Your task to perform on an android device: Go to sound settings Image 0: 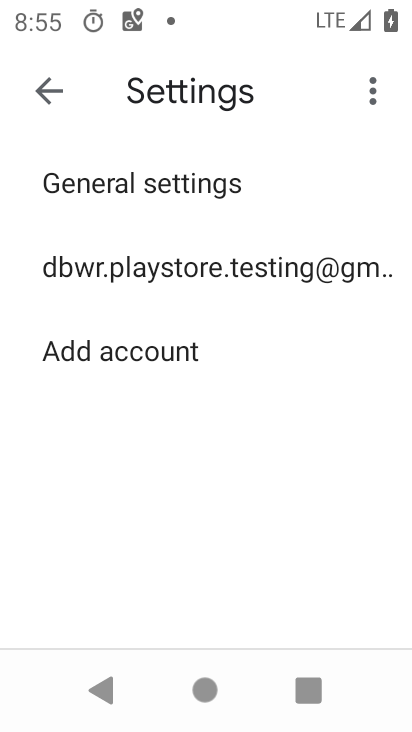
Step 0: click (272, 467)
Your task to perform on an android device: Go to sound settings Image 1: 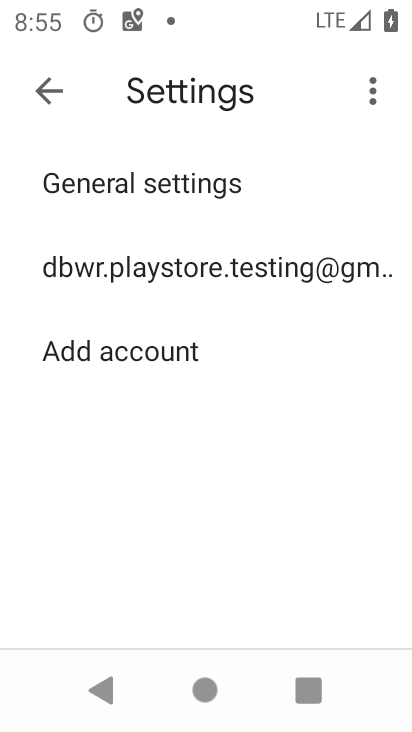
Step 1: press home button
Your task to perform on an android device: Go to sound settings Image 2: 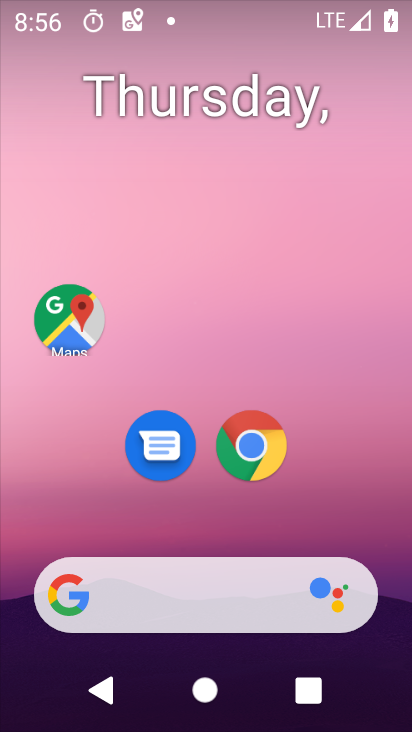
Step 2: drag from (198, 536) to (183, 18)
Your task to perform on an android device: Go to sound settings Image 3: 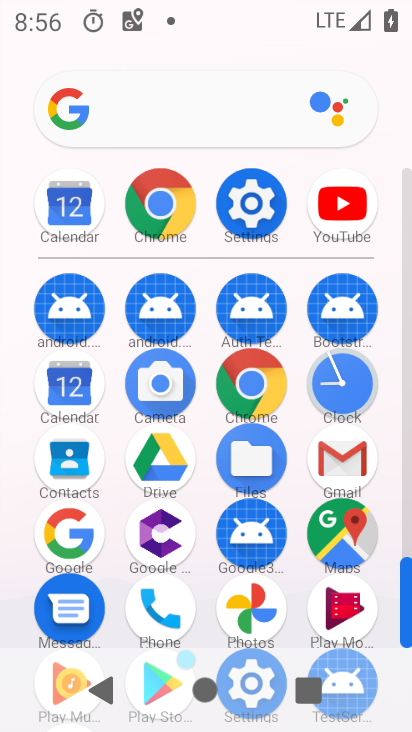
Step 3: click (247, 192)
Your task to perform on an android device: Go to sound settings Image 4: 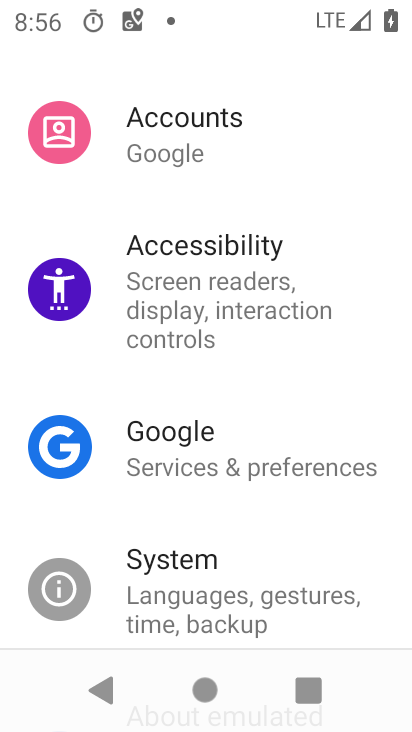
Step 4: drag from (207, 509) to (258, 111)
Your task to perform on an android device: Go to sound settings Image 5: 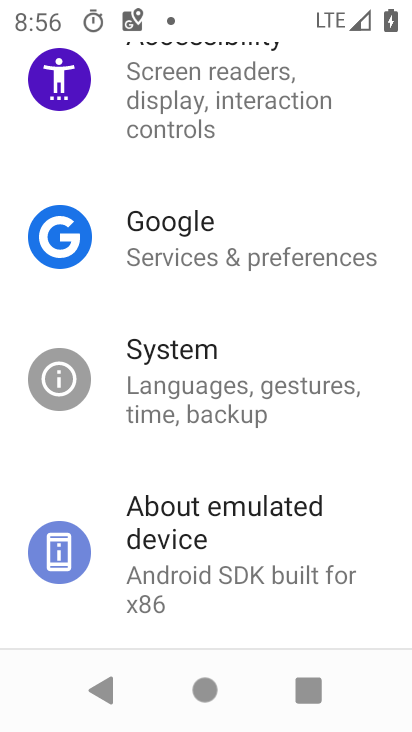
Step 5: drag from (246, 248) to (356, 728)
Your task to perform on an android device: Go to sound settings Image 6: 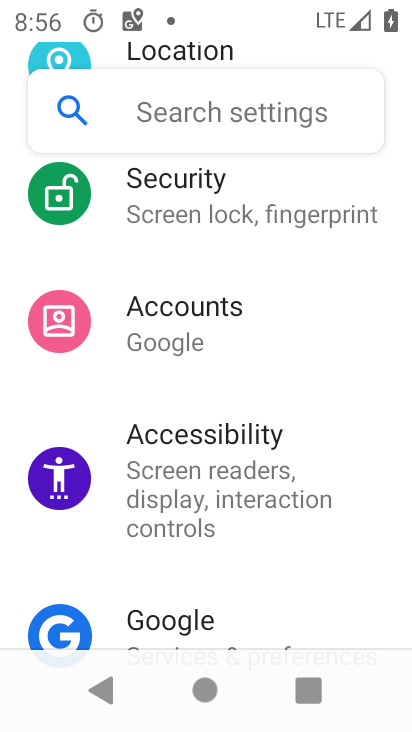
Step 6: drag from (240, 269) to (316, 707)
Your task to perform on an android device: Go to sound settings Image 7: 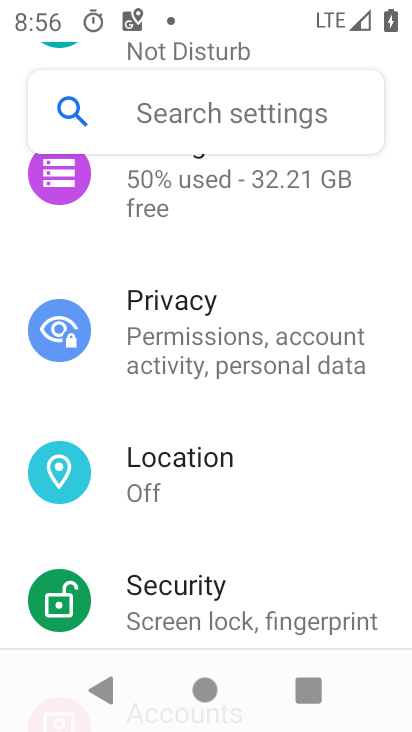
Step 7: drag from (251, 355) to (376, 730)
Your task to perform on an android device: Go to sound settings Image 8: 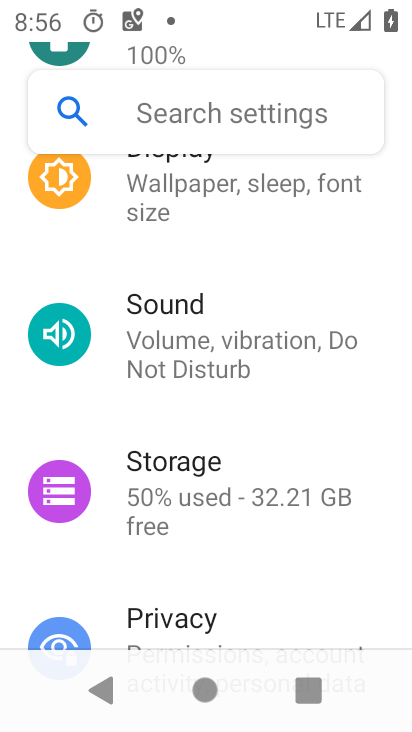
Step 8: click (201, 339)
Your task to perform on an android device: Go to sound settings Image 9: 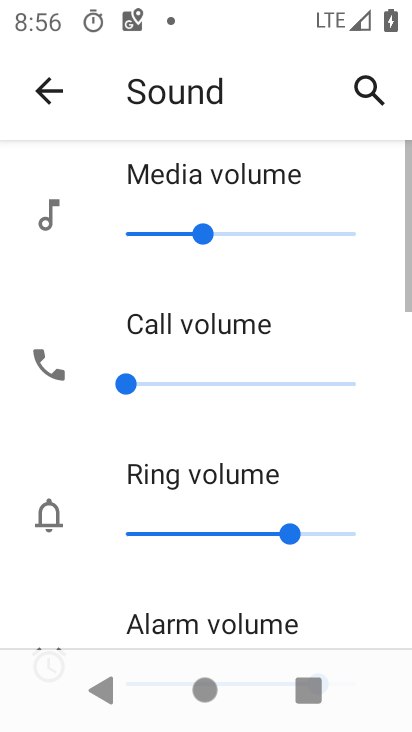
Step 9: task complete